Your task to perform on an android device: Open Yahoo.com Image 0: 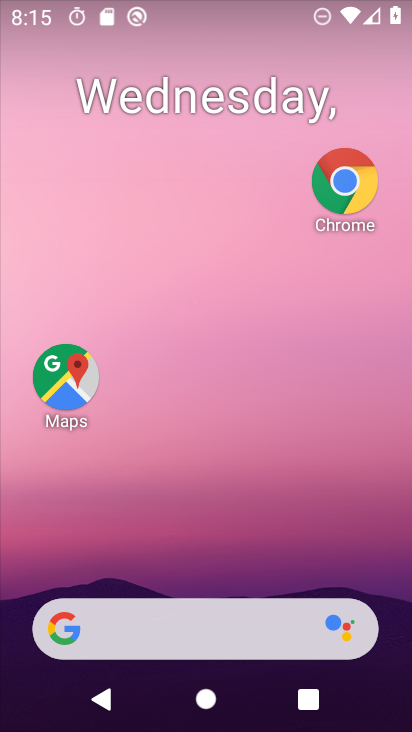
Step 0: click (312, 428)
Your task to perform on an android device: Open Yahoo.com Image 1: 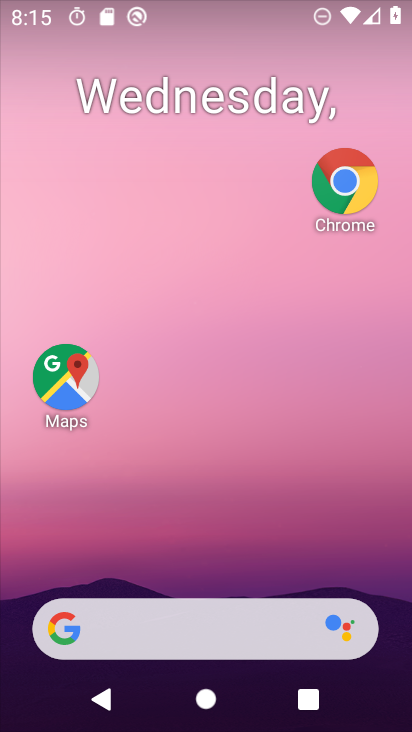
Step 1: drag from (253, 673) to (199, 276)
Your task to perform on an android device: Open Yahoo.com Image 2: 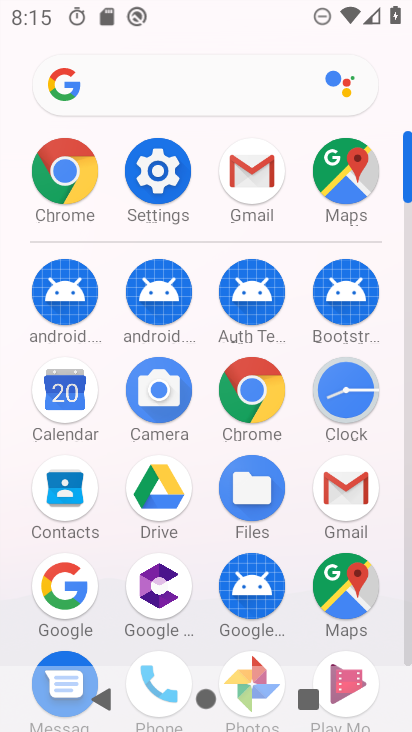
Step 2: click (80, 175)
Your task to perform on an android device: Open Yahoo.com Image 3: 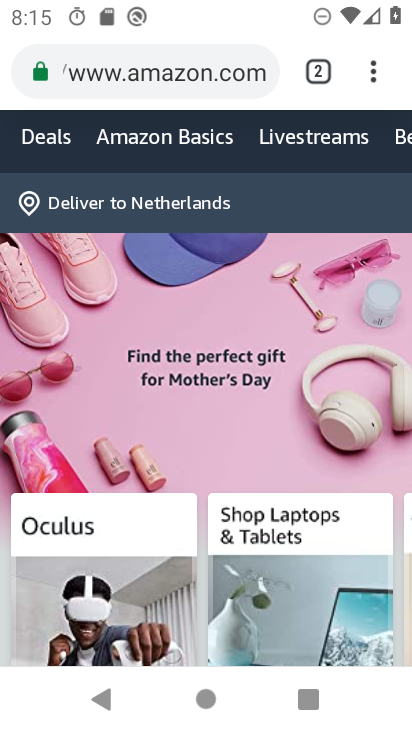
Step 3: click (311, 77)
Your task to perform on an android device: Open Yahoo.com Image 4: 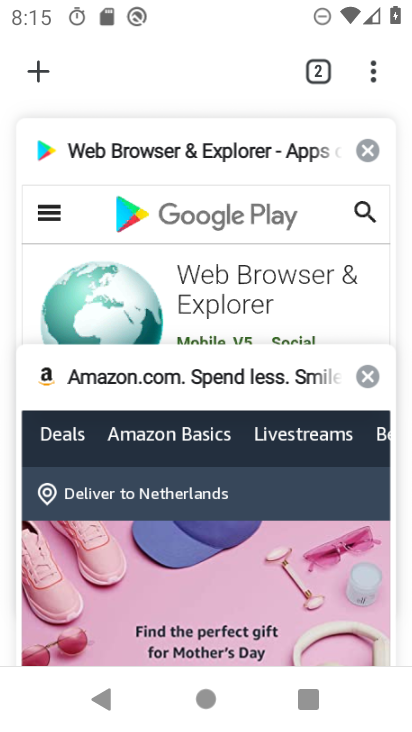
Step 4: click (40, 85)
Your task to perform on an android device: Open Yahoo.com Image 5: 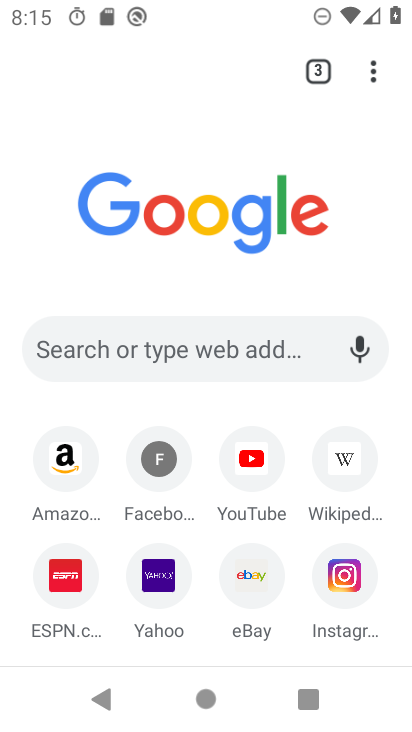
Step 5: click (145, 342)
Your task to perform on an android device: Open Yahoo.com Image 6: 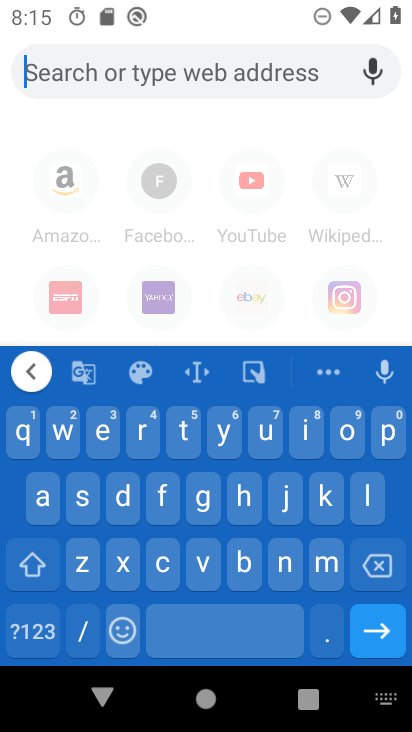
Step 6: click (220, 444)
Your task to perform on an android device: Open Yahoo.com Image 7: 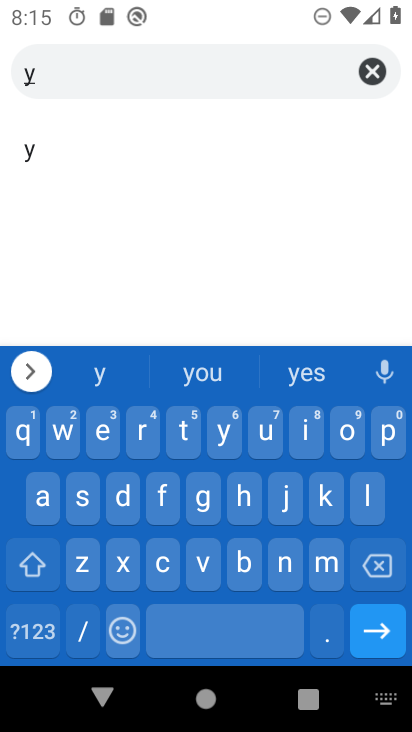
Step 7: click (43, 498)
Your task to perform on an android device: Open Yahoo.com Image 8: 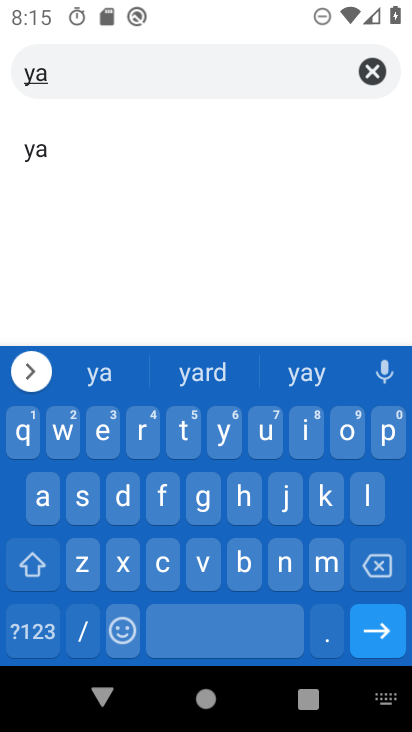
Step 8: click (240, 503)
Your task to perform on an android device: Open Yahoo.com Image 9: 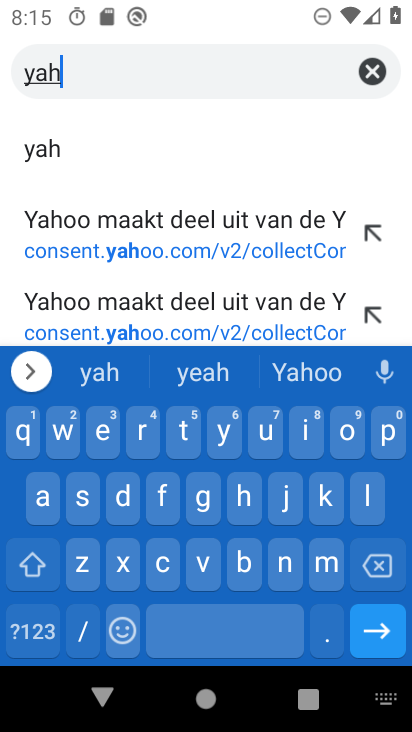
Step 9: click (336, 448)
Your task to perform on an android device: Open Yahoo.com Image 10: 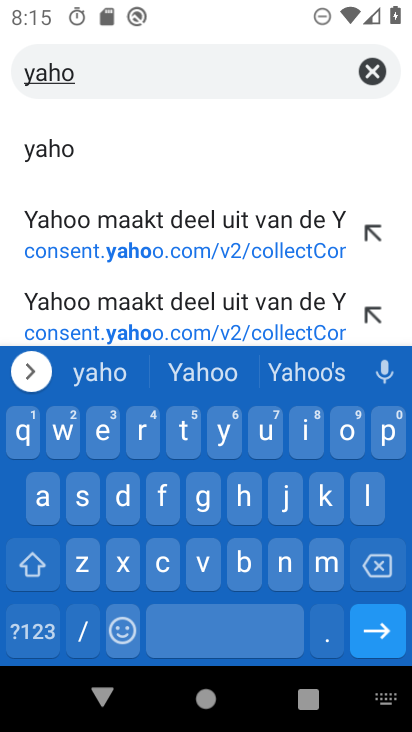
Step 10: click (336, 448)
Your task to perform on an android device: Open Yahoo.com Image 11: 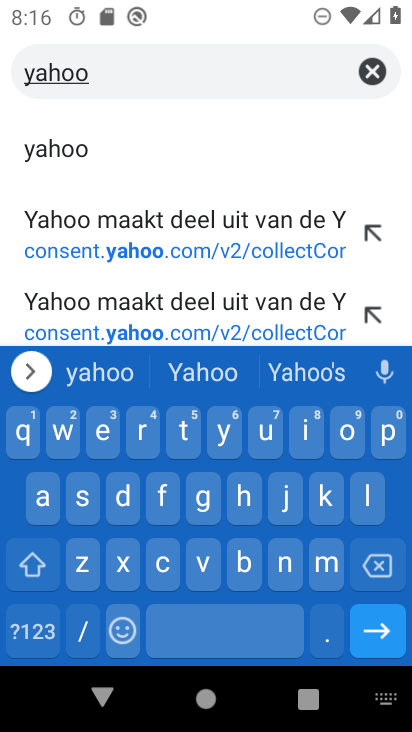
Step 11: click (330, 634)
Your task to perform on an android device: Open Yahoo.com Image 12: 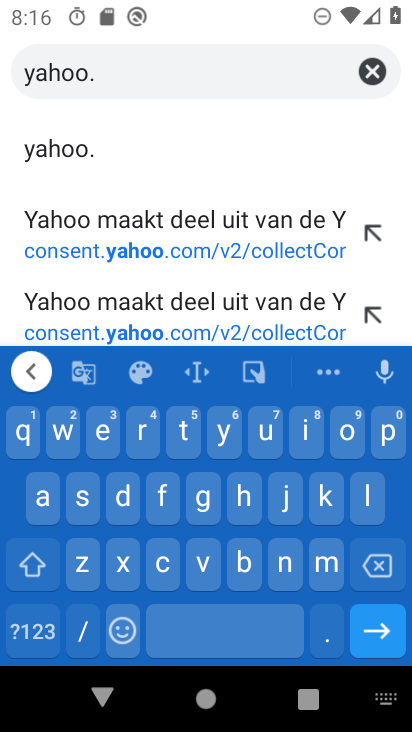
Step 12: click (160, 569)
Your task to perform on an android device: Open Yahoo.com Image 13: 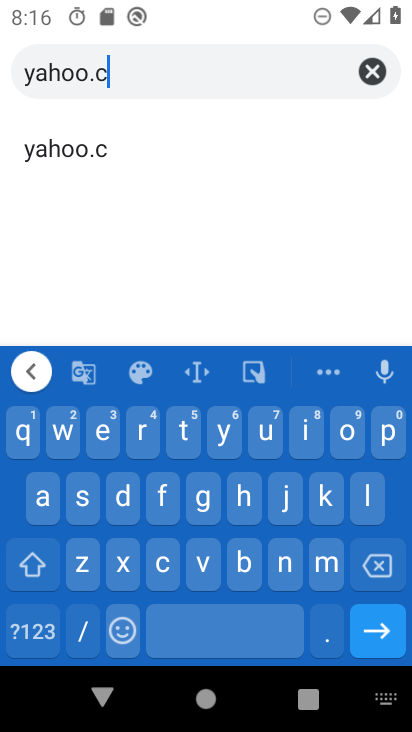
Step 13: click (340, 437)
Your task to perform on an android device: Open Yahoo.com Image 14: 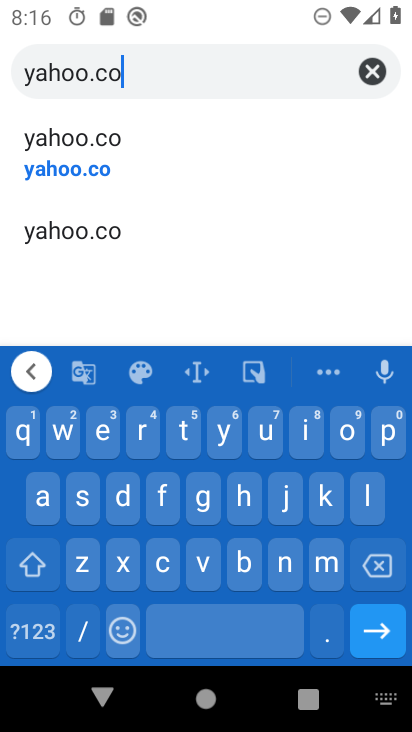
Step 14: click (334, 560)
Your task to perform on an android device: Open Yahoo.com Image 15: 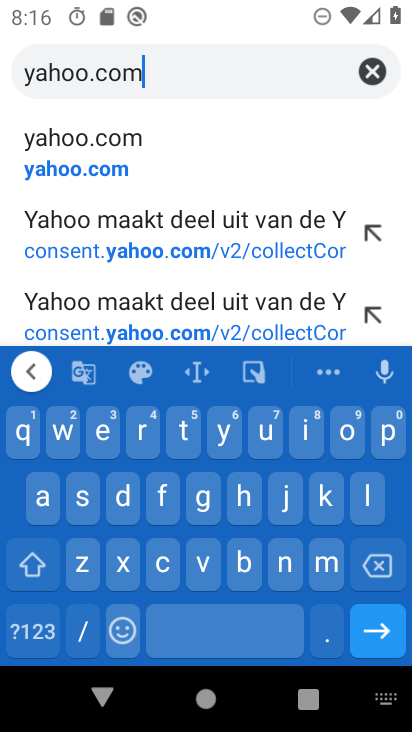
Step 15: click (134, 169)
Your task to perform on an android device: Open Yahoo.com Image 16: 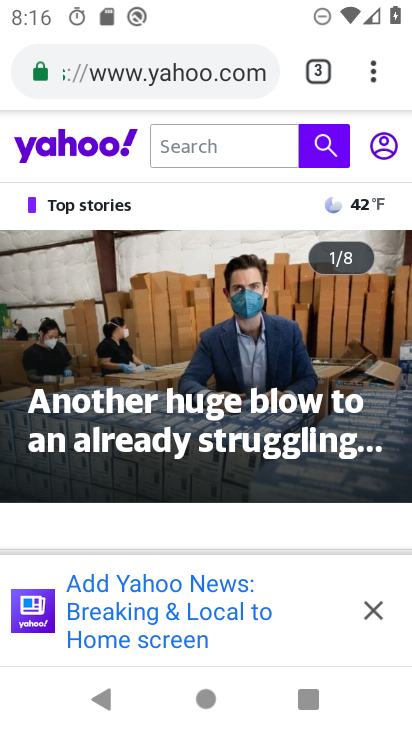
Step 16: task complete